Your task to perform on an android device: Search for bose soundsport free on costco.com, select the first entry, and add it to the cart. Image 0: 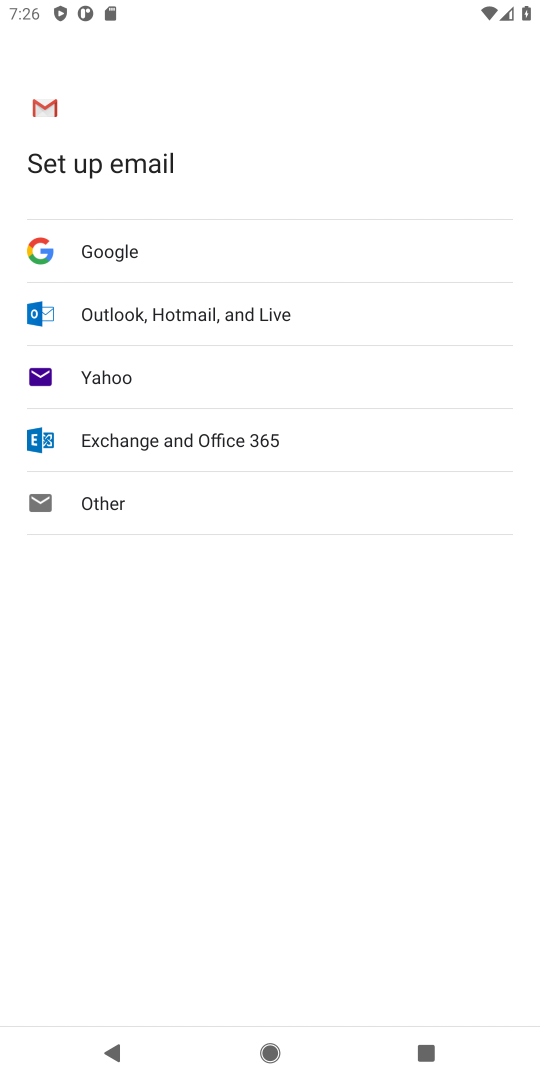
Step 0: press home button
Your task to perform on an android device: Search for bose soundsport free on costco.com, select the first entry, and add it to the cart. Image 1: 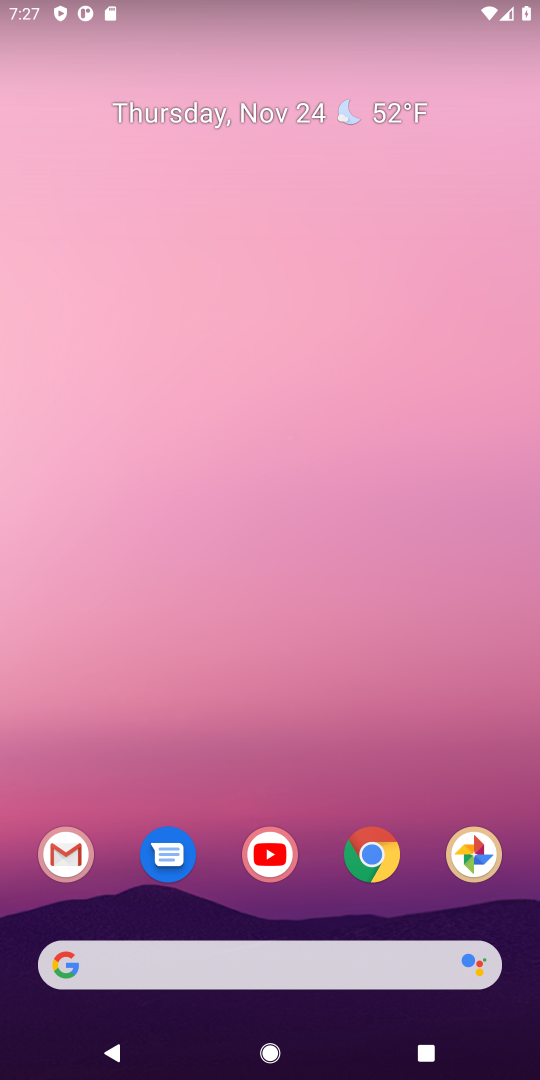
Step 1: click (378, 860)
Your task to perform on an android device: Search for bose soundsport free on costco.com, select the first entry, and add it to the cart. Image 2: 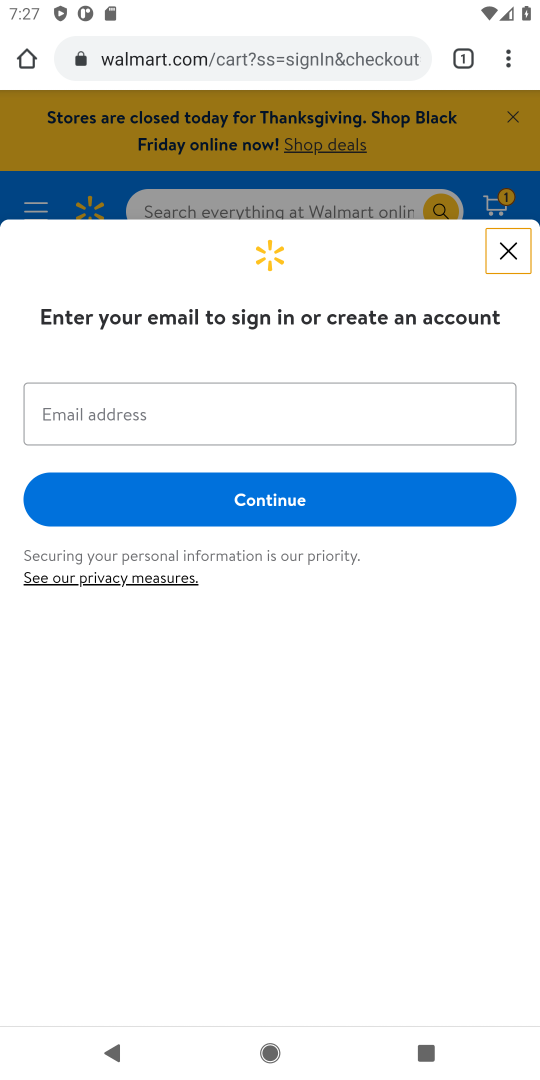
Step 2: click (234, 66)
Your task to perform on an android device: Search for bose soundsport free on costco.com, select the first entry, and add it to the cart. Image 3: 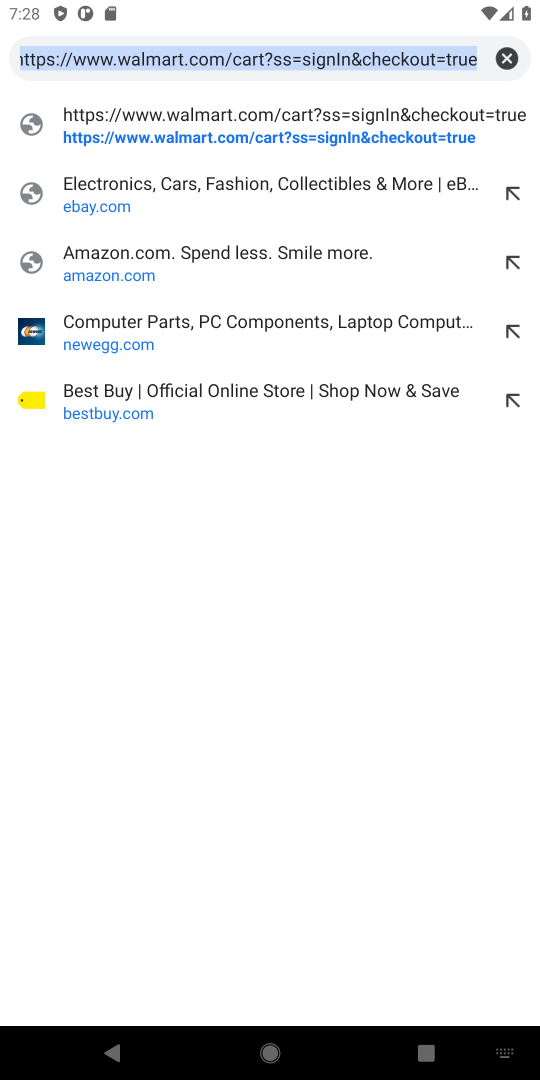
Step 3: type "costco.com"
Your task to perform on an android device: Search for bose soundsport free on costco.com, select the first entry, and add it to the cart. Image 4: 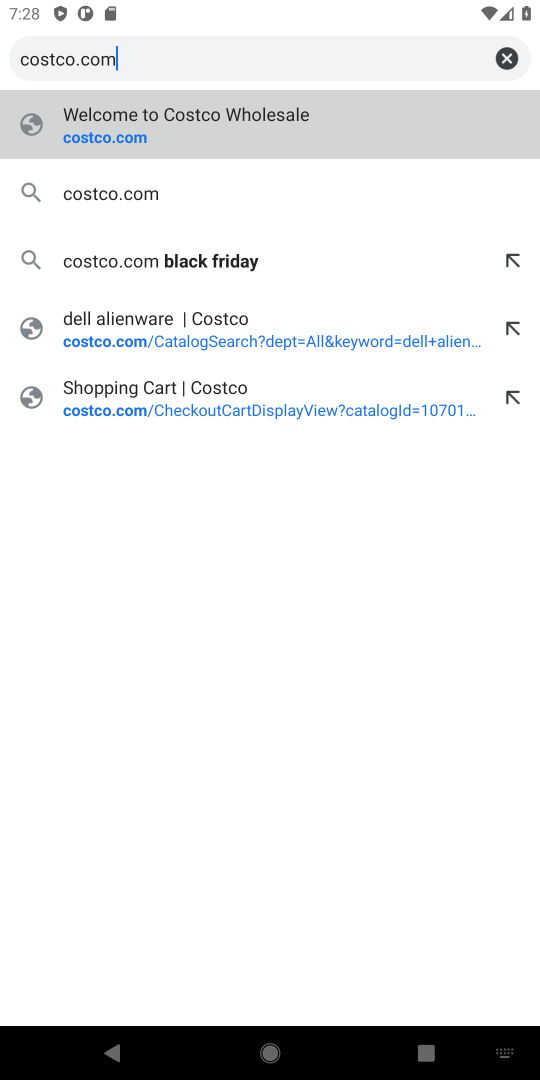
Step 4: click (97, 131)
Your task to perform on an android device: Search for bose soundsport free on costco.com, select the first entry, and add it to the cart. Image 5: 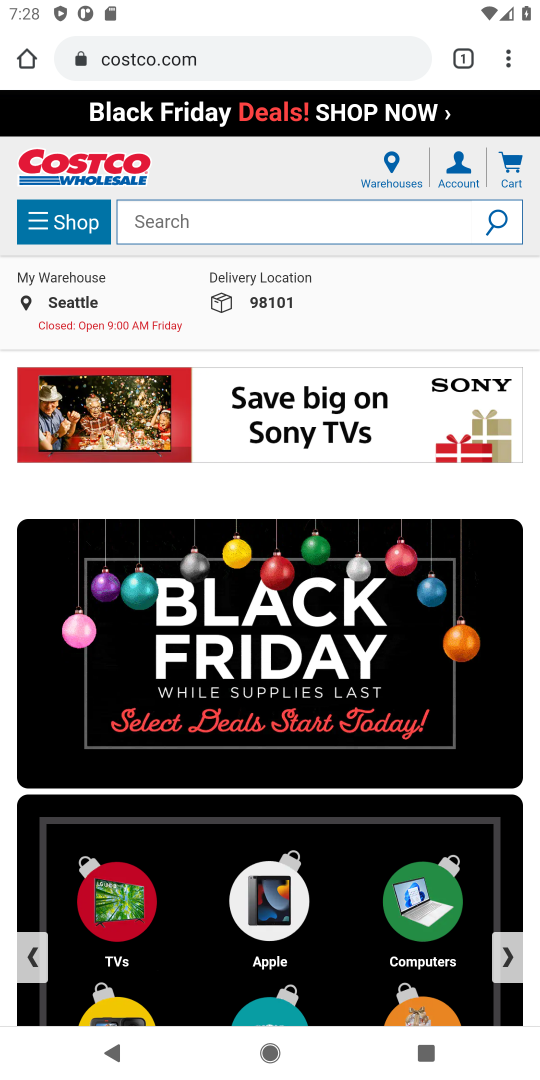
Step 5: click (189, 227)
Your task to perform on an android device: Search for bose soundsport free on costco.com, select the first entry, and add it to the cart. Image 6: 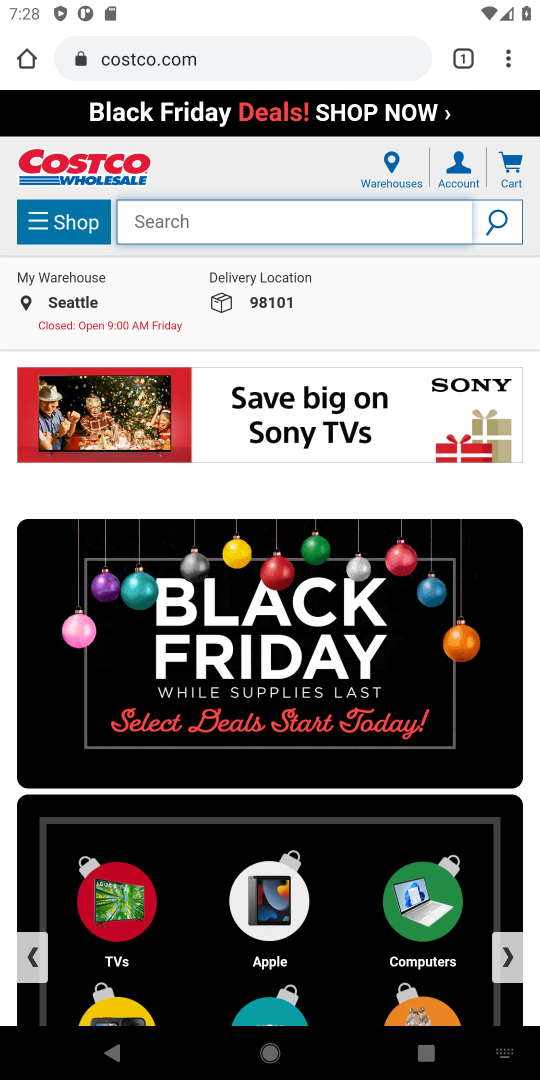
Step 6: type "bose soundsport free"
Your task to perform on an android device: Search for bose soundsport free on costco.com, select the first entry, and add it to the cart. Image 7: 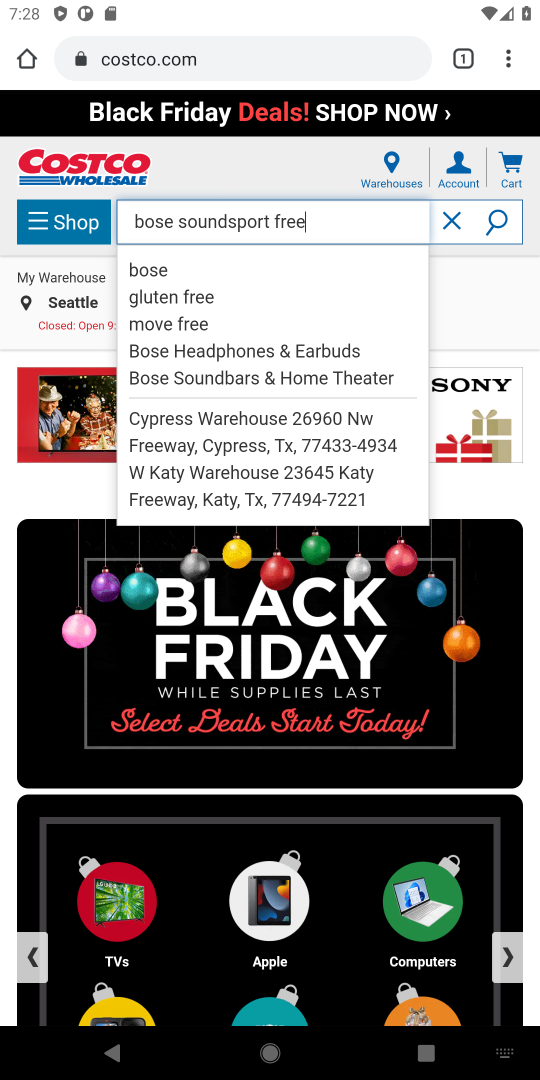
Step 7: click (510, 218)
Your task to perform on an android device: Search for bose soundsport free on costco.com, select the first entry, and add it to the cart. Image 8: 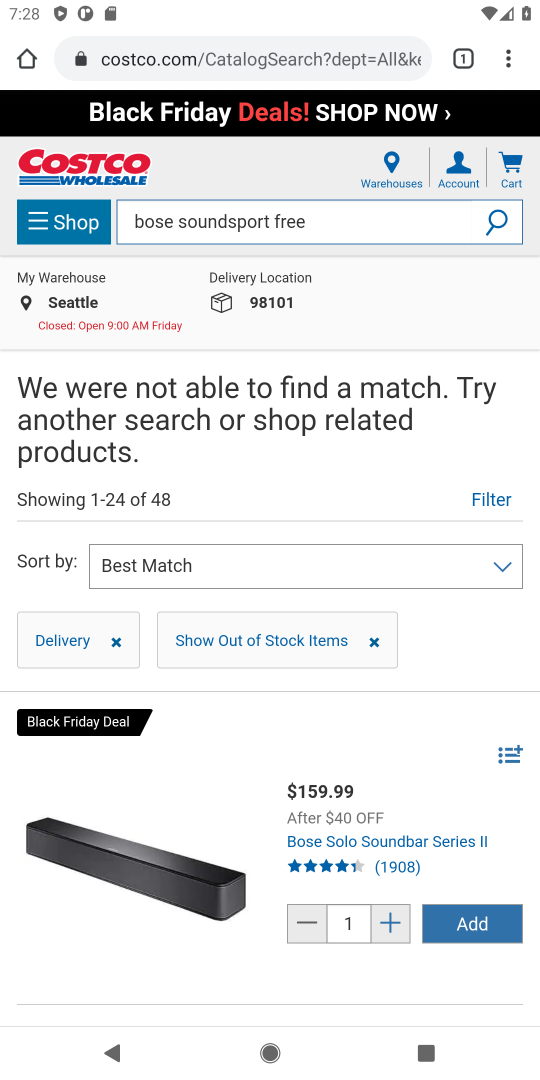
Step 8: task complete